Your task to perform on an android device: Go to privacy settings Image 0: 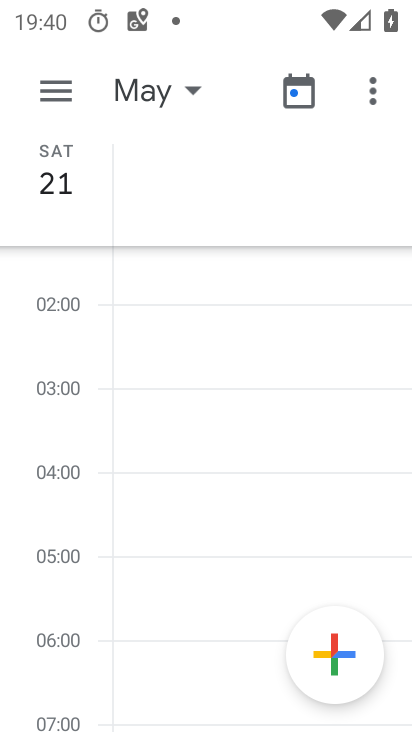
Step 0: press home button
Your task to perform on an android device: Go to privacy settings Image 1: 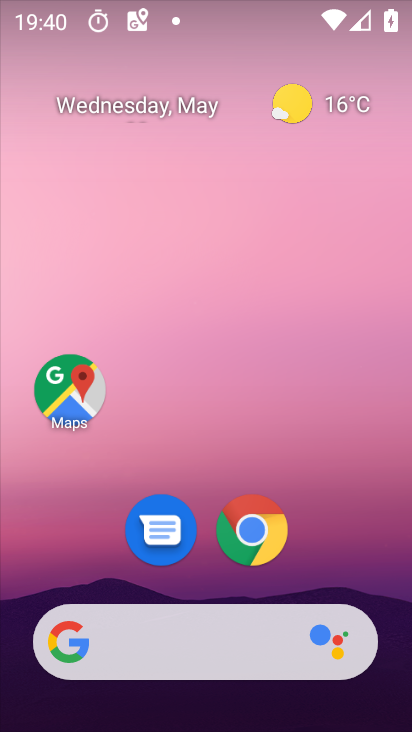
Step 1: drag from (203, 545) to (178, 273)
Your task to perform on an android device: Go to privacy settings Image 2: 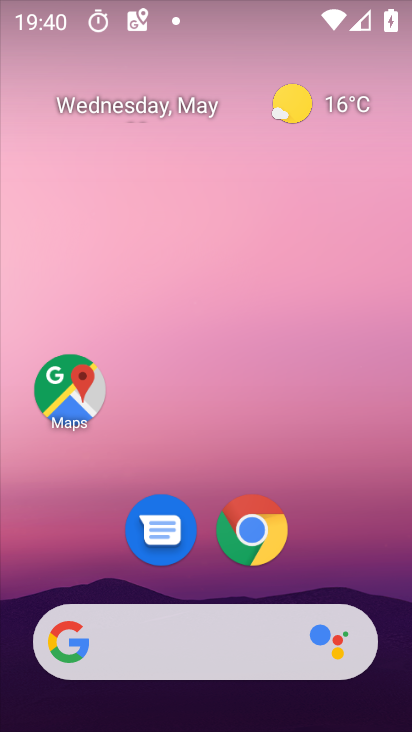
Step 2: drag from (197, 550) to (217, 100)
Your task to perform on an android device: Go to privacy settings Image 3: 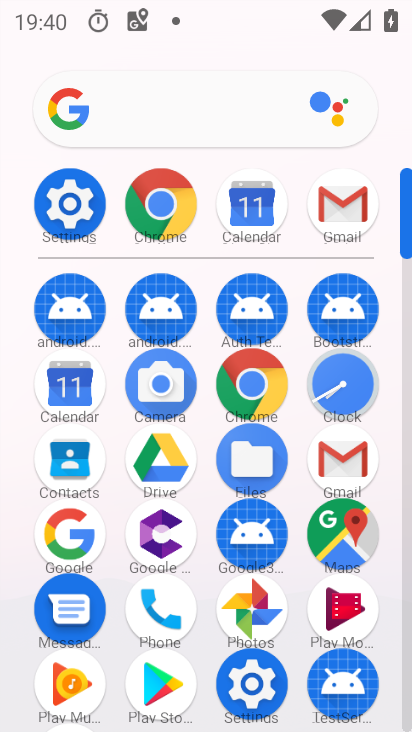
Step 3: click (249, 685)
Your task to perform on an android device: Go to privacy settings Image 4: 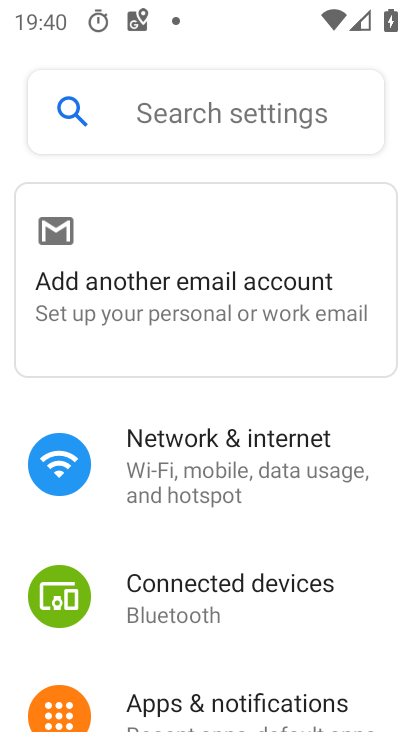
Step 4: drag from (247, 638) to (327, 415)
Your task to perform on an android device: Go to privacy settings Image 5: 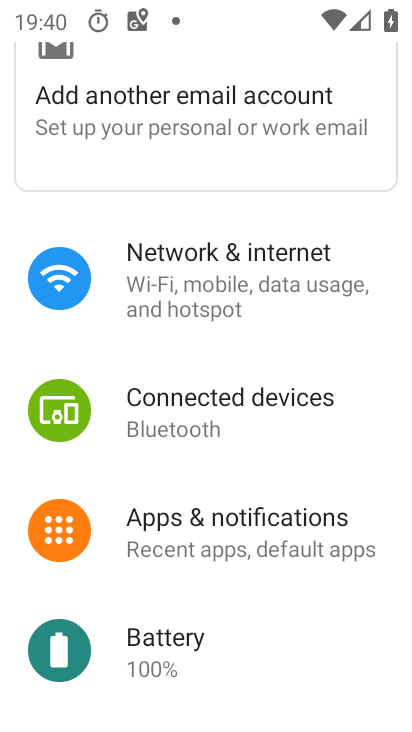
Step 5: drag from (267, 629) to (328, 379)
Your task to perform on an android device: Go to privacy settings Image 6: 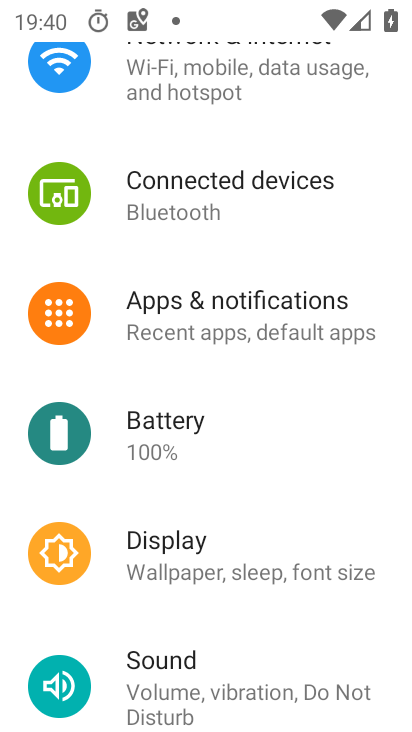
Step 6: drag from (255, 627) to (406, 364)
Your task to perform on an android device: Go to privacy settings Image 7: 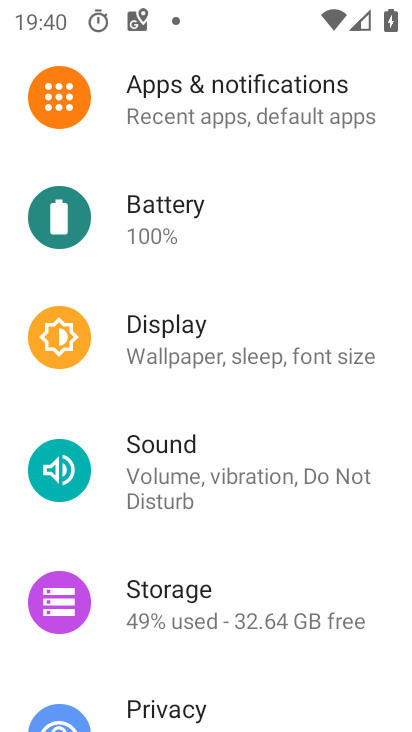
Step 7: drag from (274, 671) to (352, 405)
Your task to perform on an android device: Go to privacy settings Image 8: 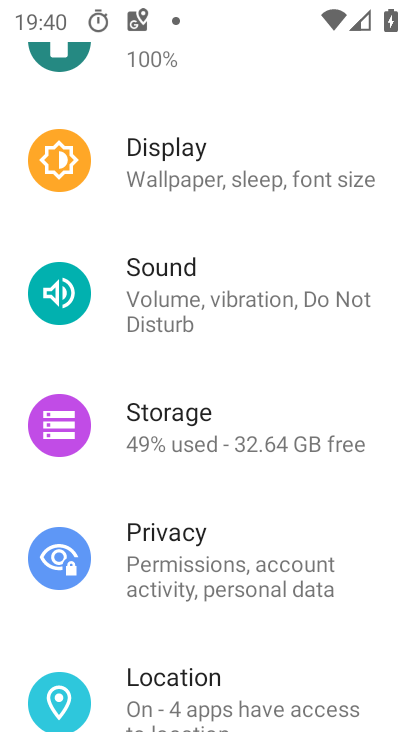
Step 8: click (214, 550)
Your task to perform on an android device: Go to privacy settings Image 9: 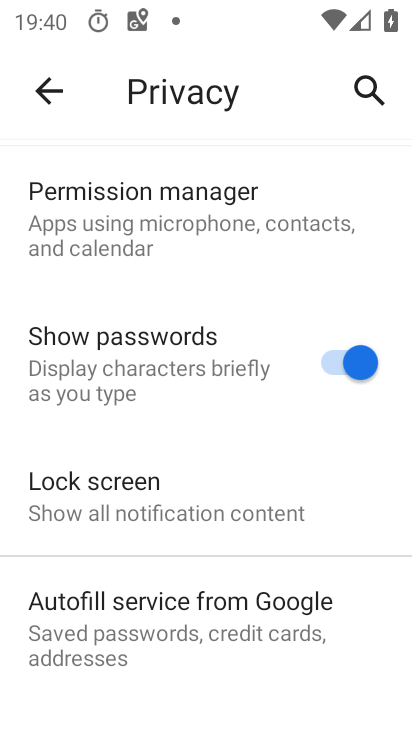
Step 9: task complete